Your task to perform on an android device: Go to notification settings Image 0: 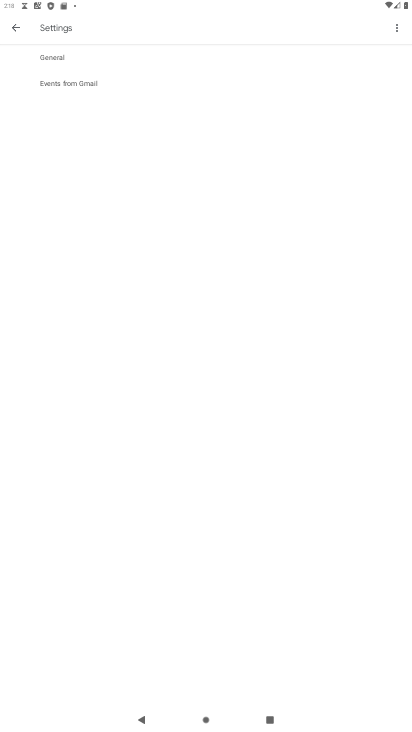
Step 0: press home button
Your task to perform on an android device: Go to notification settings Image 1: 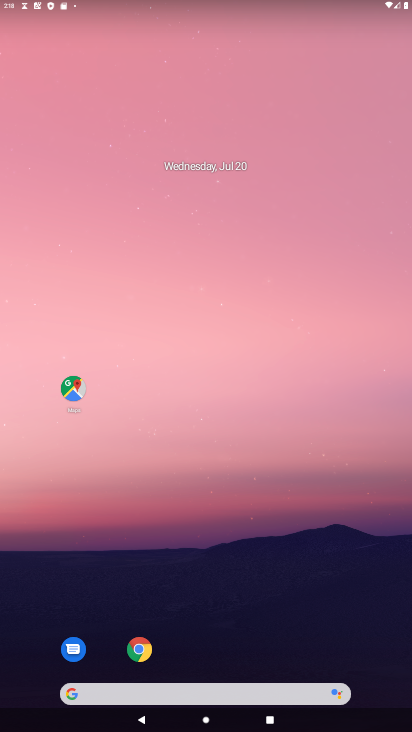
Step 1: drag from (252, 626) to (355, 1)
Your task to perform on an android device: Go to notification settings Image 2: 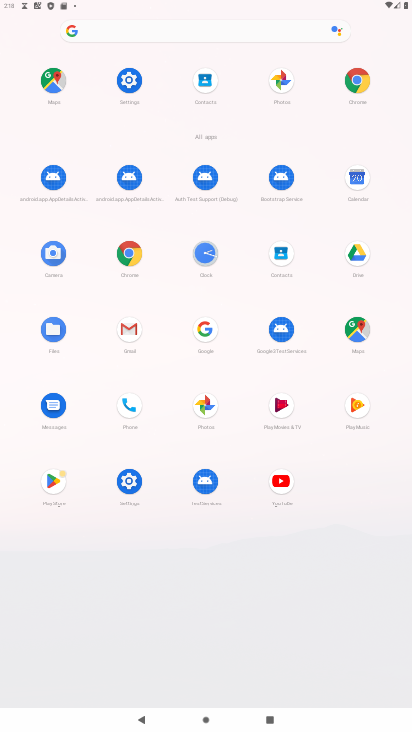
Step 2: click (135, 492)
Your task to perform on an android device: Go to notification settings Image 3: 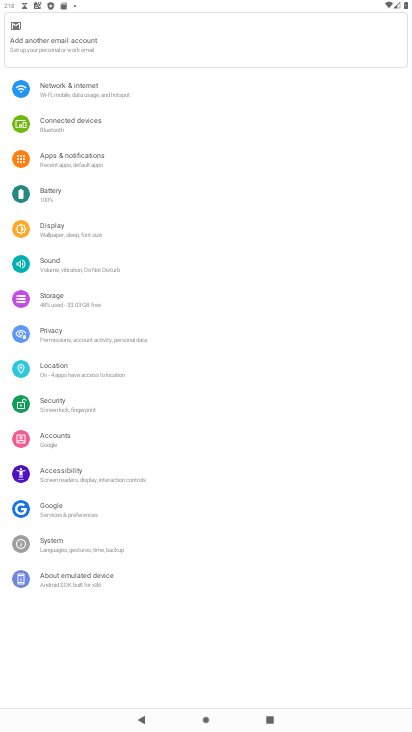
Step 3: click (85, 165)
Your task to perform on an android device: Go to notification settings Image 4: 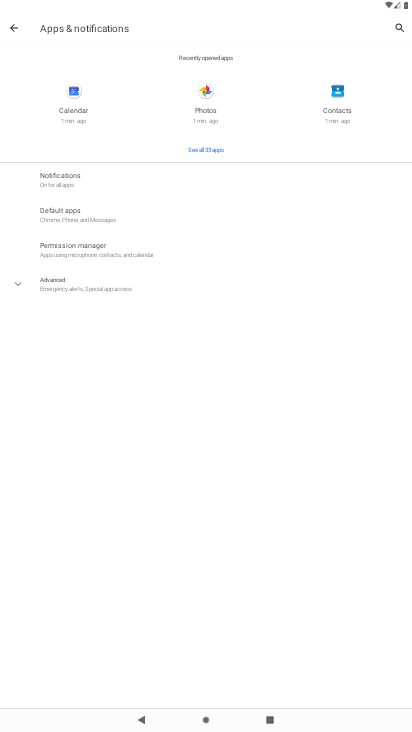
Step 4: click (80, 181)
Your task to perform on an android device: Go to notification settings Image 5: 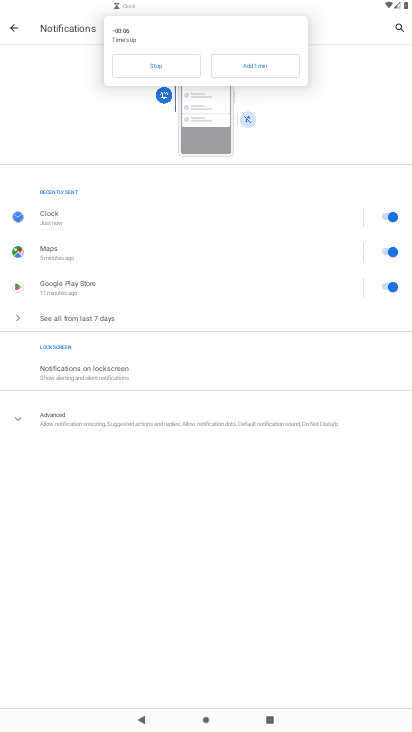
Step 5: task complete